Your task to perform on an android device: snooze an email in the gmail app Image 0: 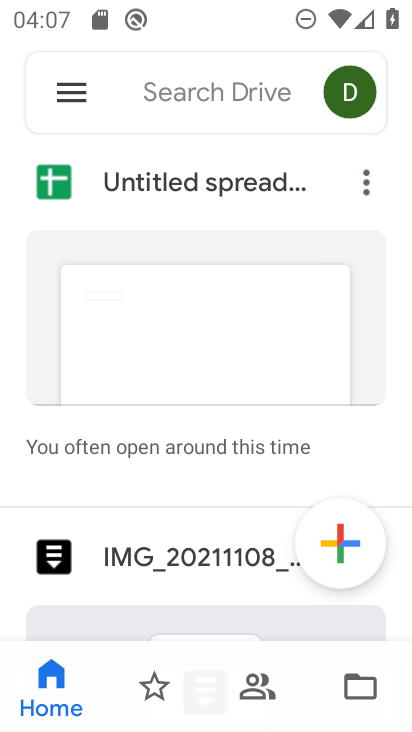
Step 0: press home button
Your task to perform on an android device: snooze an email in the gmail app Image 1: 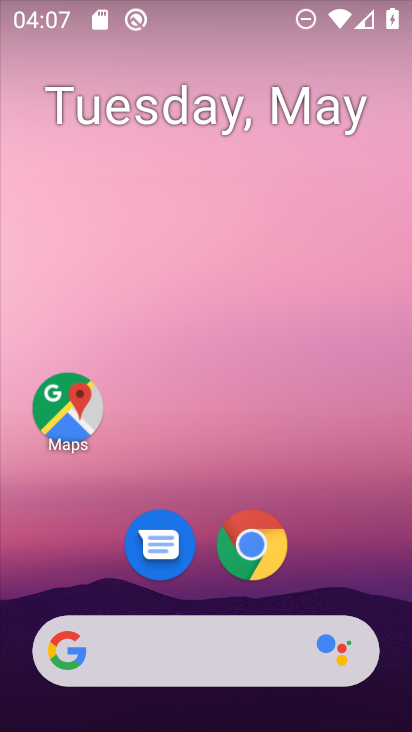
Step 1: drag from (394, 608) to (350, 118)
Your task to perform on an android device: snooze an email in the gmail app Image 2: 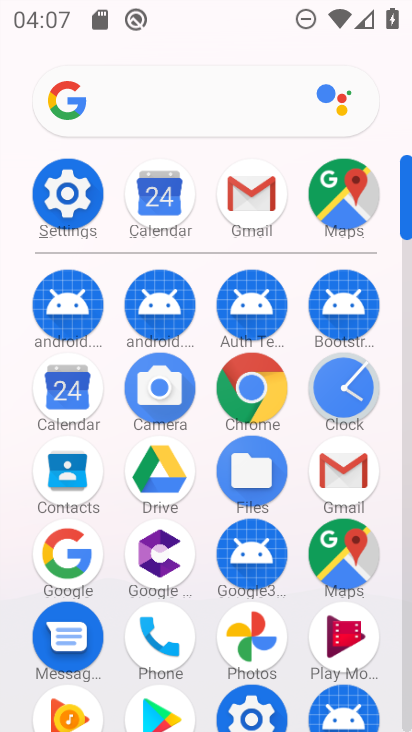
Step 2: click (409, 704)
Your task to perform on an android device: snooze an email in the gmail app Image 3: 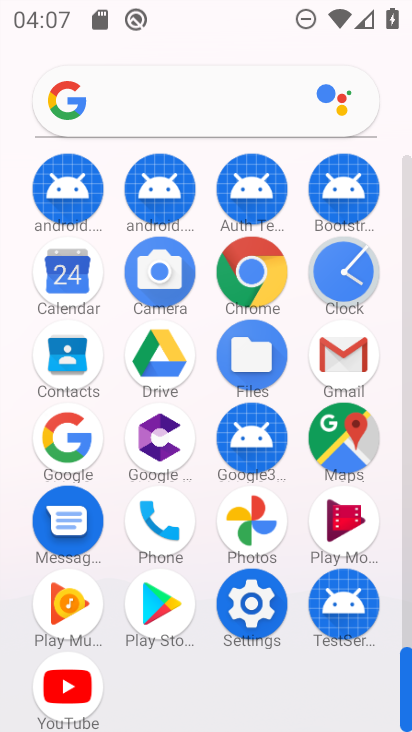
Step 3: click (340, 348)
Your task to perform on an android device: snooze an email in the gmail app Image 4: 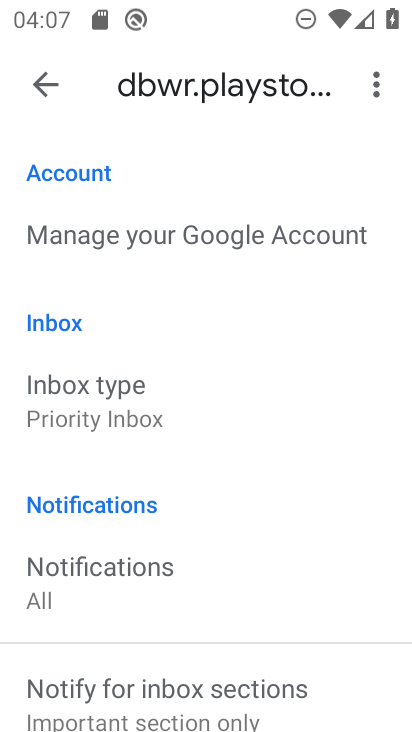
Step 4: press back button
Your task to perform on an android device: snooze an email in the gmail app Image 5: 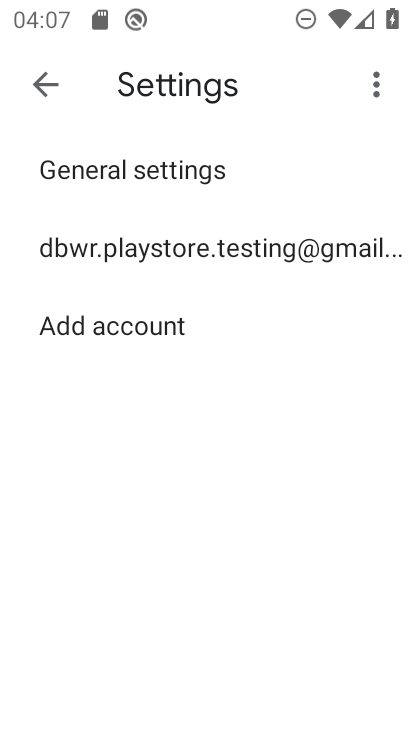
Step 5: press back button
Your task to perform on an android device: snooze an email in the gmail app Image 6: 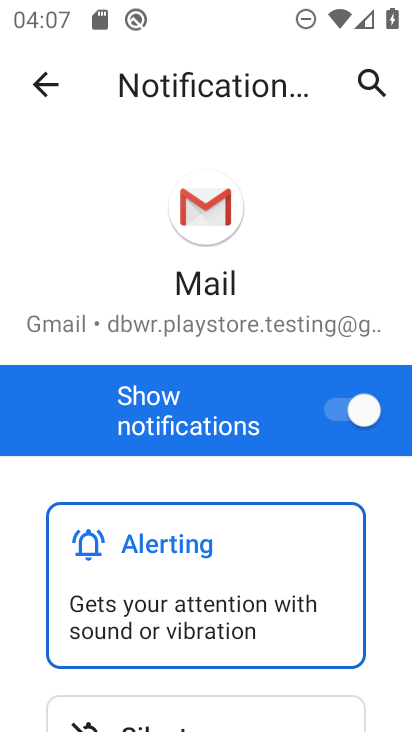
Step 6: press back button
Your task to perform on an android device: snooze an email in the gmail app Image 7: 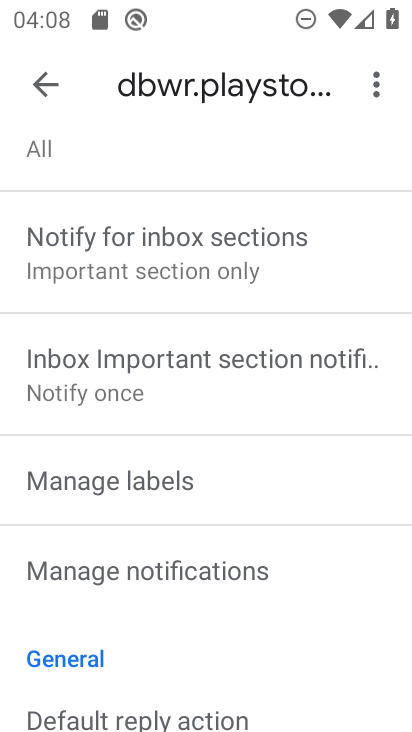
Step 7: press back button
Your task to perform on an android device: snooze an email in the gmail app Image 8: 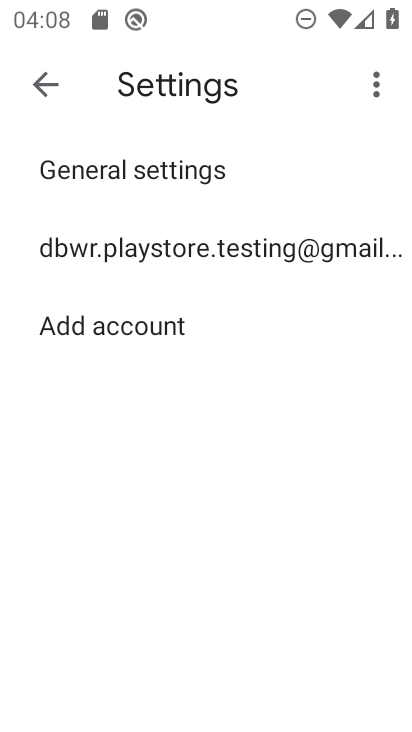
Step 8: press back button
Your task to perform on an android device: snooze an email in the gmail app Image 9: 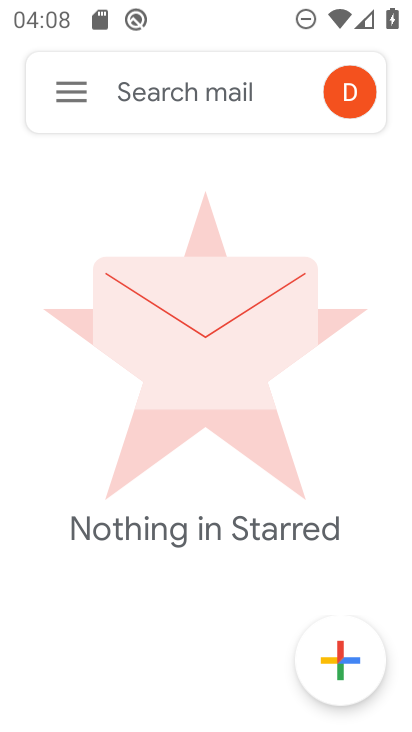
Step 9: click (68, 98)
Your task to perform on an android device: snooze an email in the gmail app Image 10: 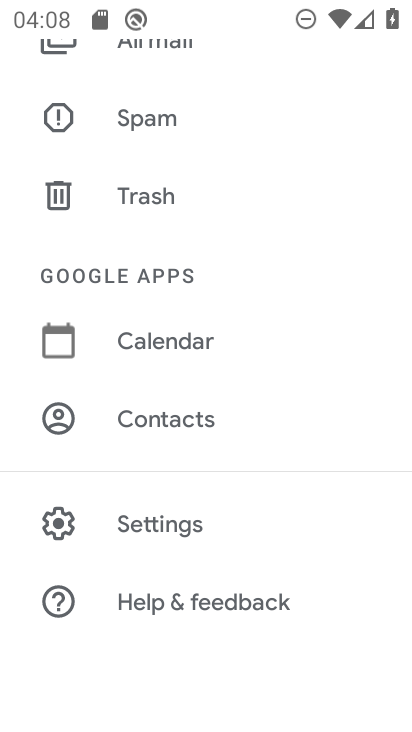
Step 10: drag from (293, 235) to (266, 543)
Your task to perform on an android device: snooze an email in the gmail app Image 11: 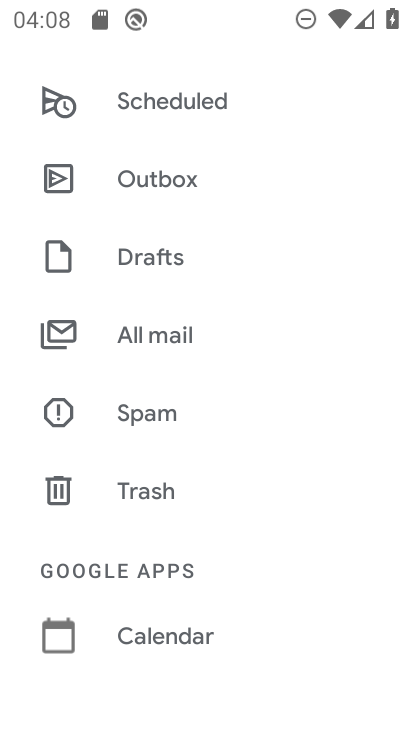
Step 11: drag from (240, 171) to (227, 459)
Your task to perform on an android device: snooze an email in the gmail app Image 12: 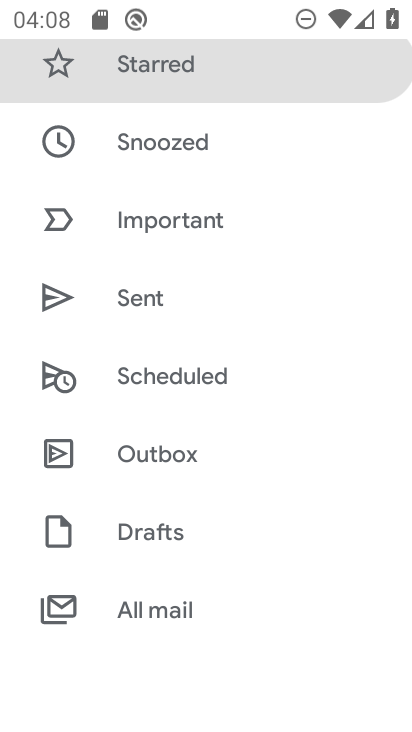
Step 12: click (160, 140)
Your task to perform on an android device: snooze an email in the gmail app Image 13: 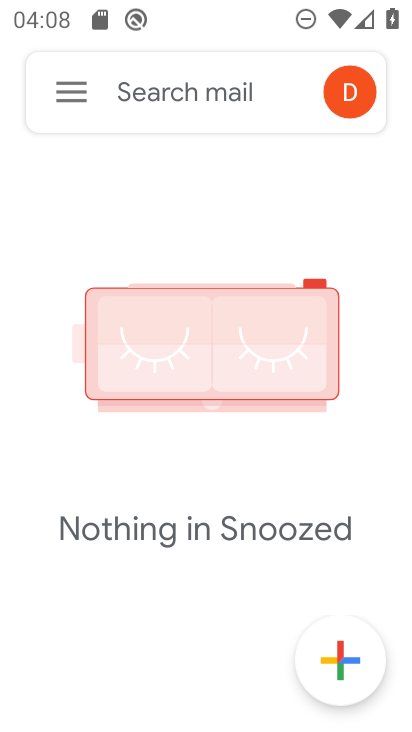
Step 13: task complete